Your task to perform on an android device: star an email in the gmail app Image 0: 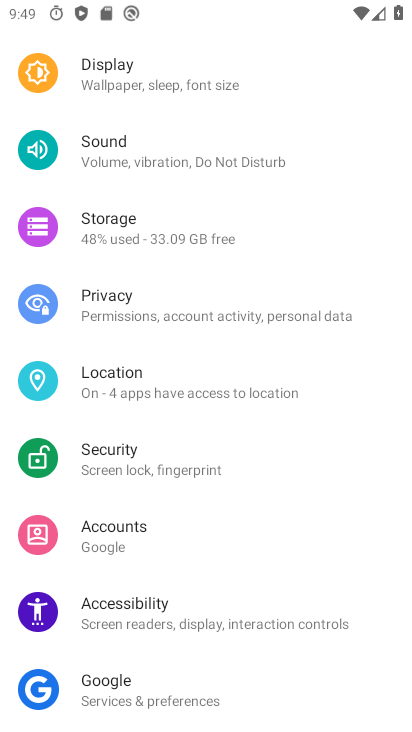
Step 0: press home button
Your task to perform on an android device: star an email in the gmail app Image 1: 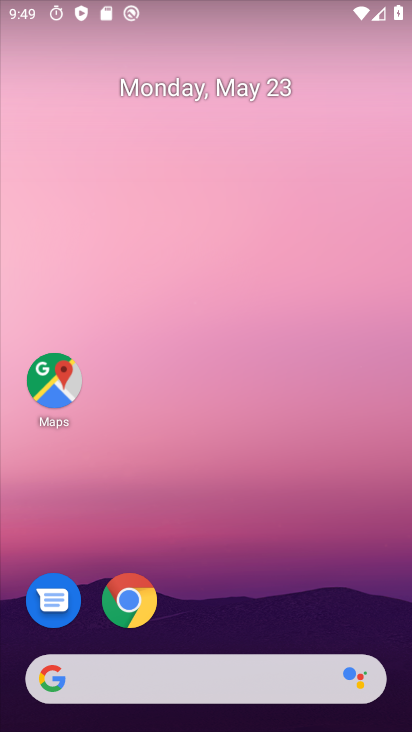
Step 1: drag from (213, 624) to (161, 90)
Your task to perform on an android device: star an email in the gmail app Image 2: 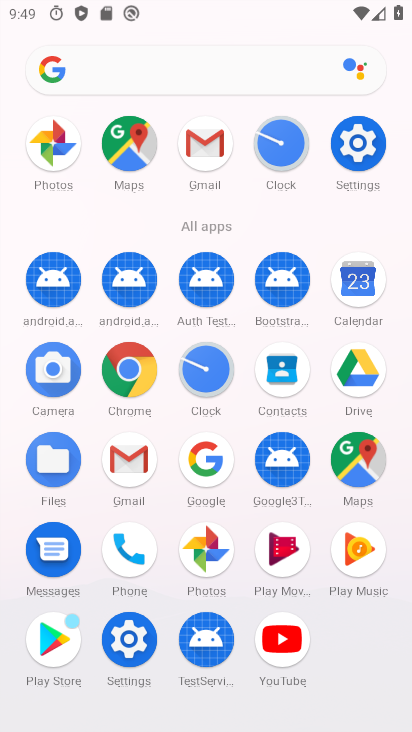
Step 2: click (212, 152)
Your task to perform on an android device: star an email in the gmail app Image 3: 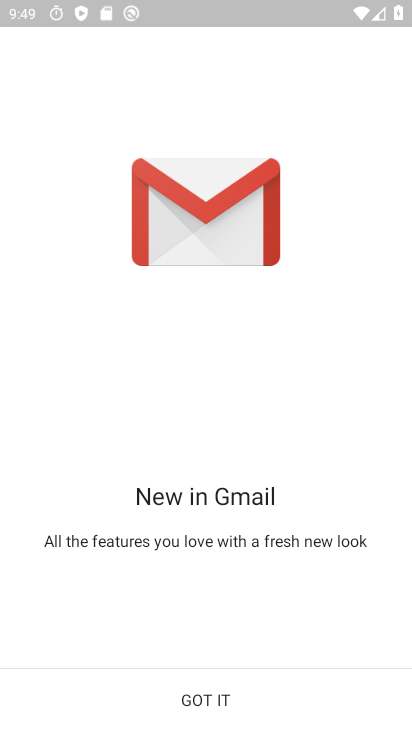
Step 3: click (212, 700)
Your task to perform on an android device: star an email in the gmail app Image 4: 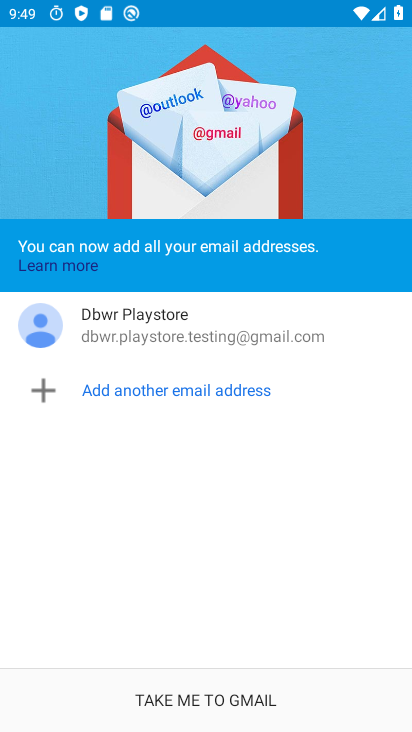
Step 4: click (212, 700)
Your task to perform on an android device: star an email in the gmail app Image 5: 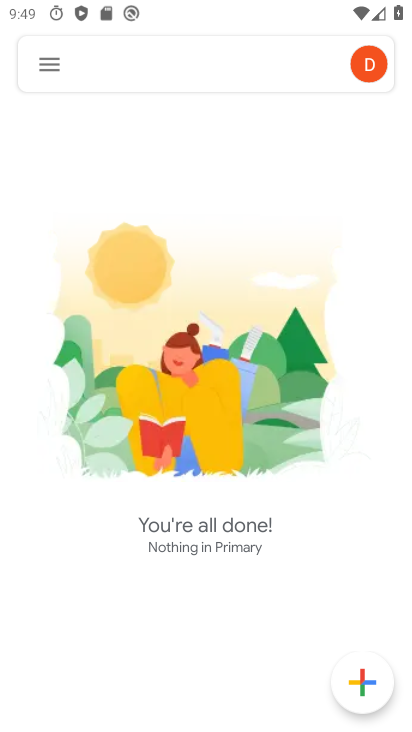
Step 5: click (49, 69)
Your task to perform on an android device: star an email in the gmail app Image 6: 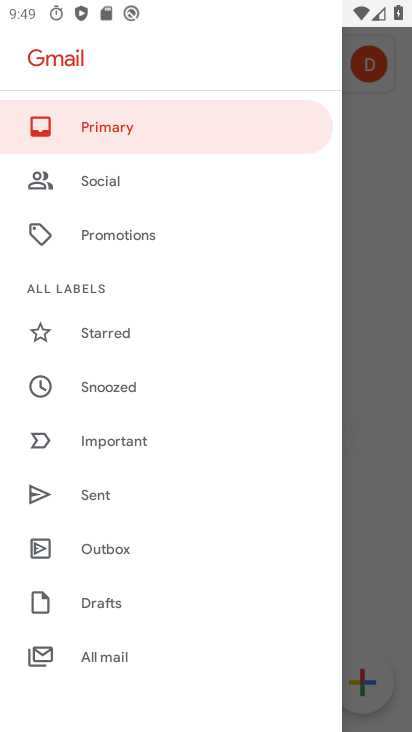
Step 6: click (140, 662)
Your task to perform on an android device: star an email in the gmail app Image 7: 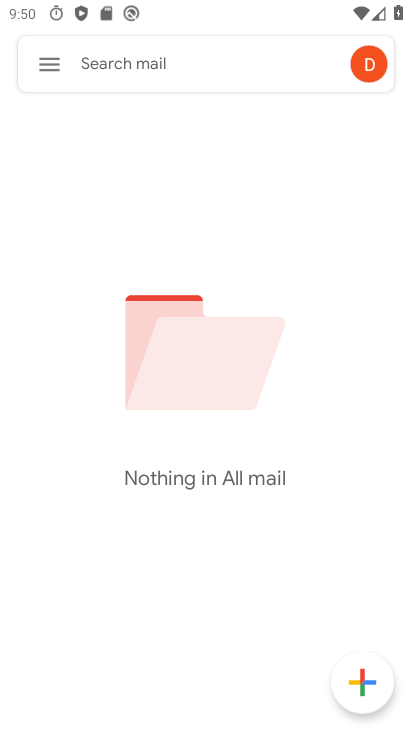
Step 7: task complete